Your task to perform on an android device: Open my contact list Image 0: 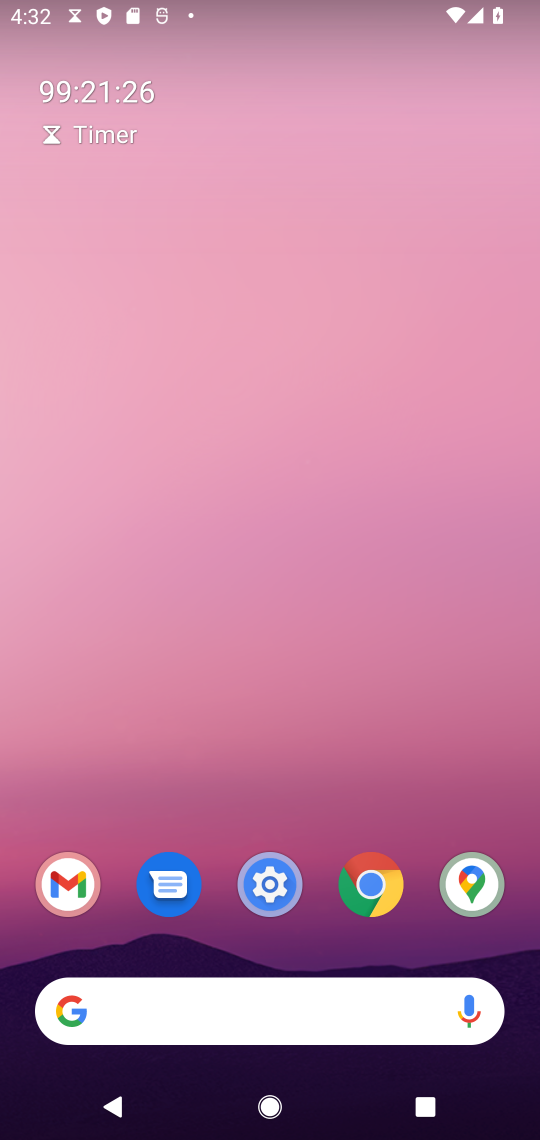
Step 0: drag from (312, 848) to (317, 272)
Your task to perform on an android device: Open my contact list Image 1: 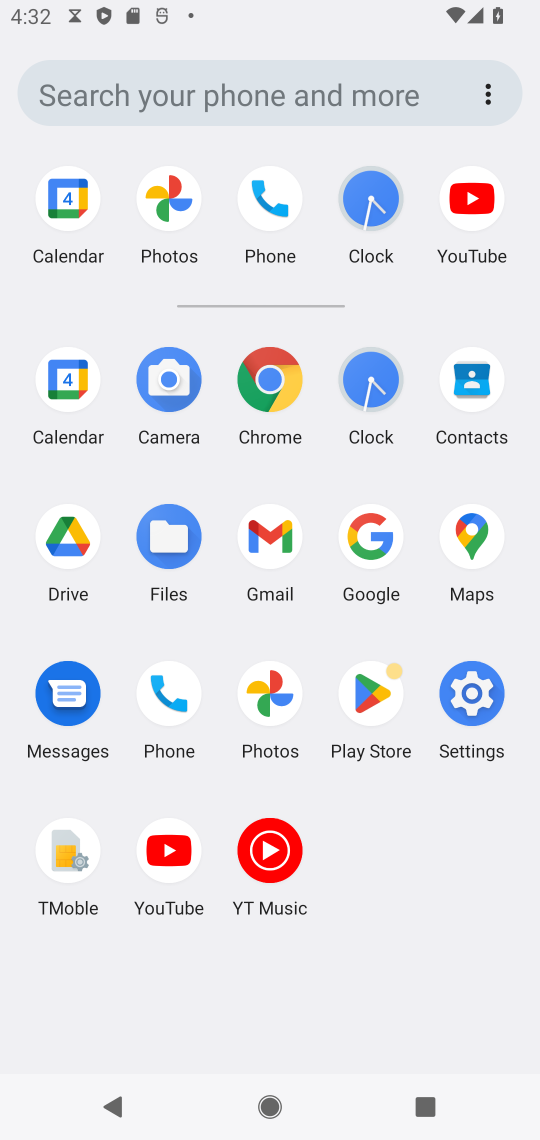
Step 1: click (459, 386)
Your task to perform on an android device: Open my contact list Image 2: 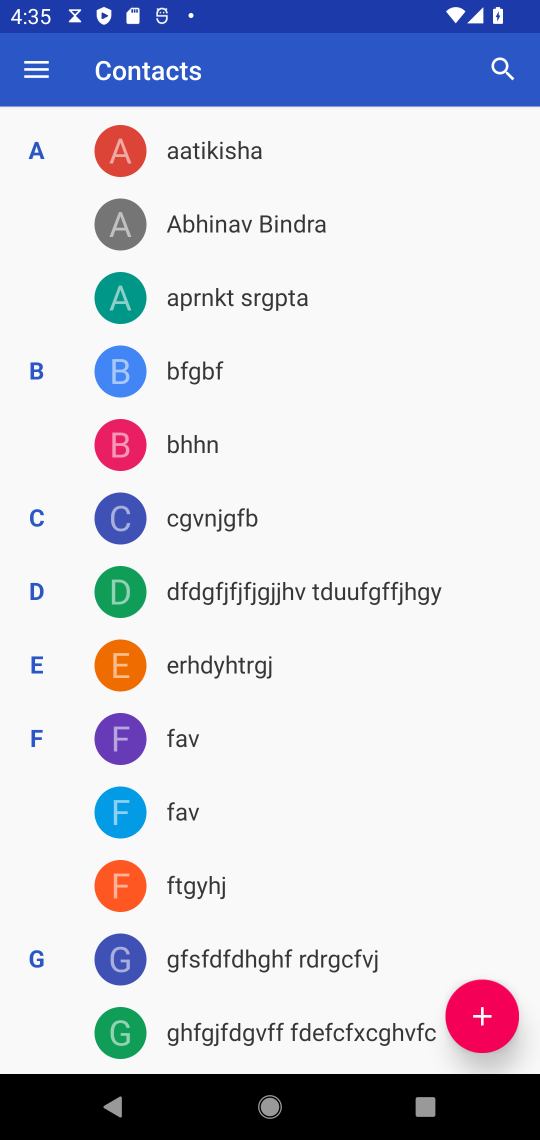
Step 2: task complete